Your task to perform on an android device: Open display settings Image 0: 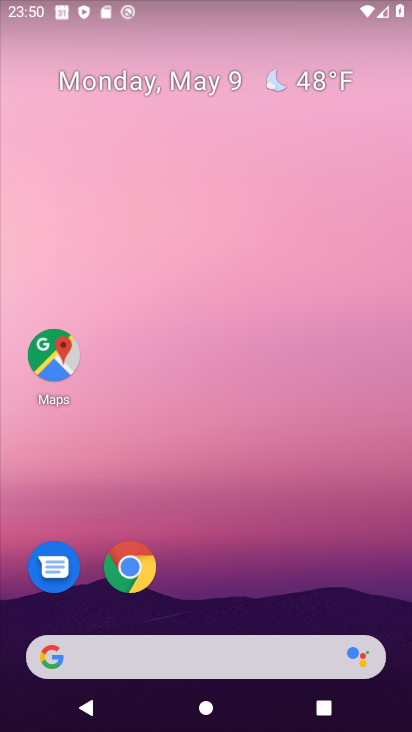
Step 0: drag from (253, 582) to (232, 86)
Your task to perform on an android device: Open display settings Image 1: 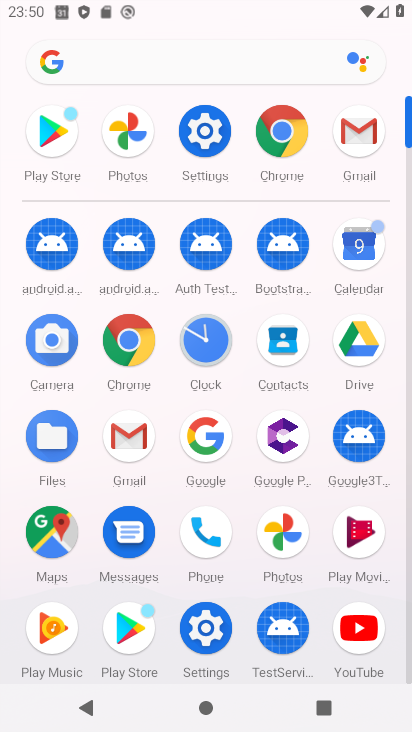
Step 1: click (206, 129)
Your task to perform on an android device: Open display settings Image 2: 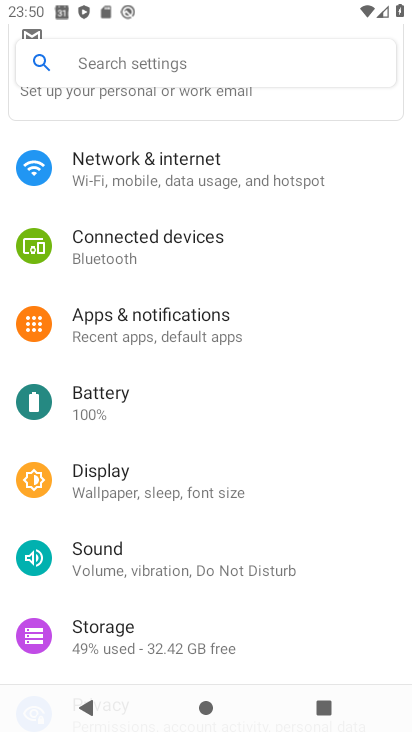
Step 2: click (116, 473)
Your task to perform on an android device: Open display settings Image 3: 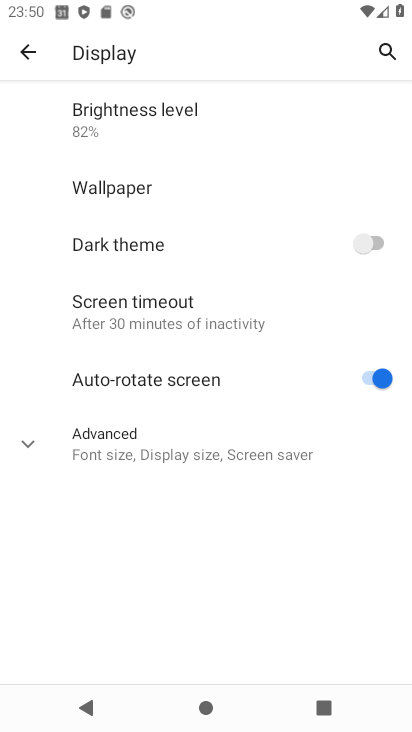
Step 3: task complete